Your task to perform on an android device: Open Google Chrome and click the shortcut for Amazon.com Image 0: 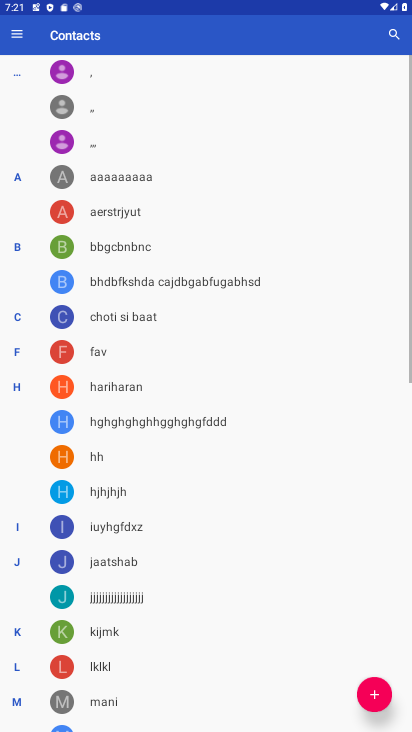
Step 0: press home button
Your task to perform on an android device: Open Google Chrome and click the shortcut for Amazon.com Image 1: 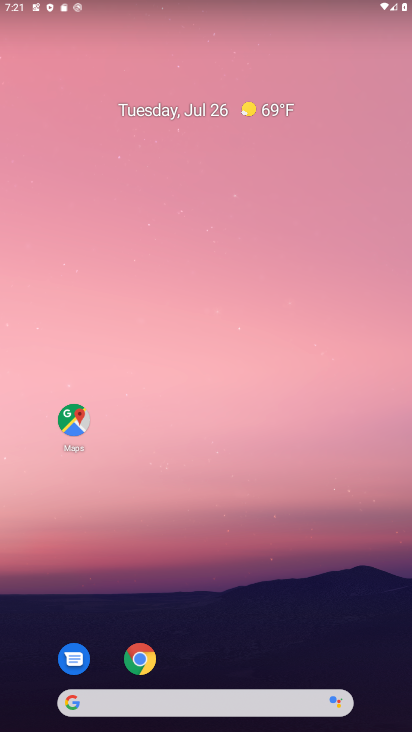
Step 1: click (136, 659)
Your task to perform on an android device: Open Google Chrome and click the shortcut for Amazon.com Image 2: 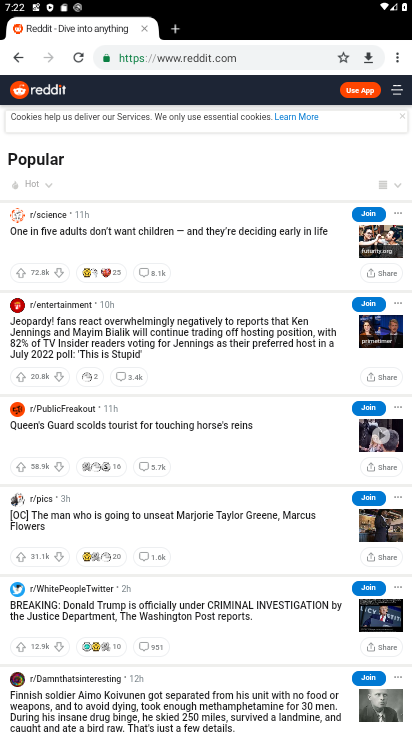
Step 2: click (172, 34)
Your task to perform on an android device: Open Google Chrome and click the shortcut for Amazon.com Image 3: 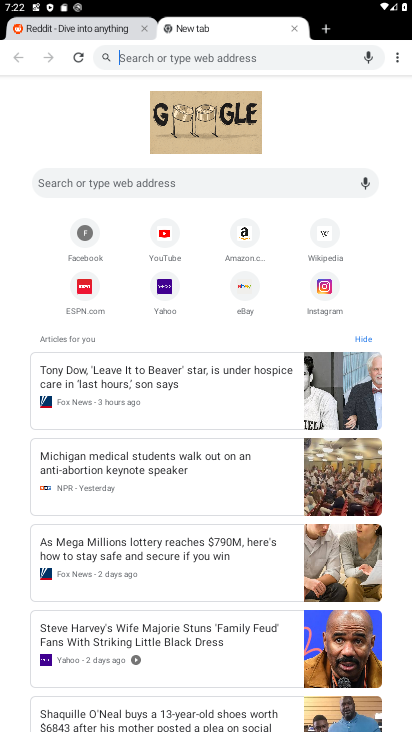
Step 3: click (247, 230)
Your task to perform on an android device: Open Google Chrome and click the shortcut for Amazon.com Image 4: 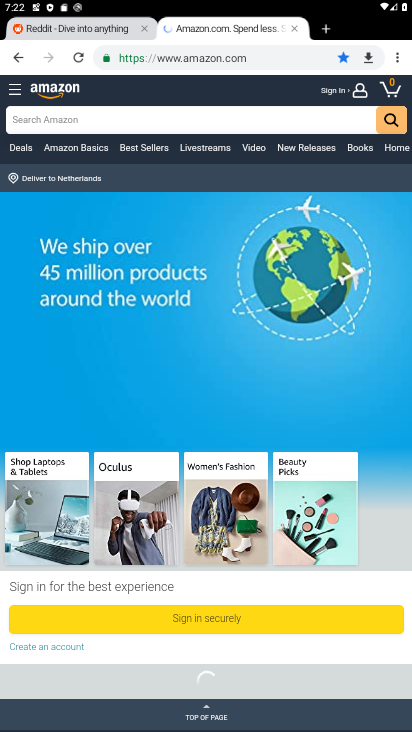
Step 4: click (392, 64)
Your task to perform on an android device: Open Google Chrome and click the shortcut for Amazon.com Image 5: 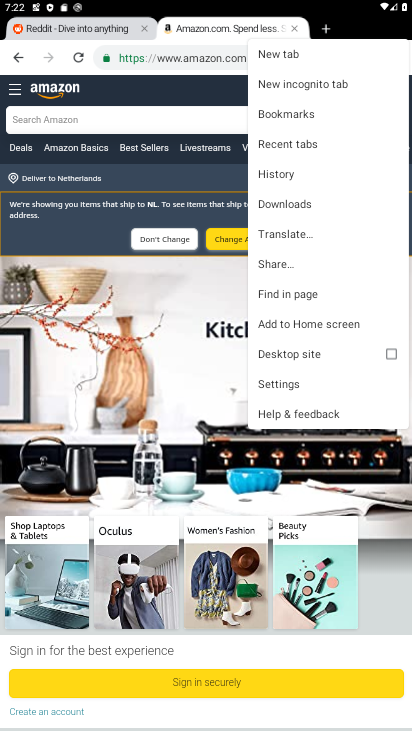
Step 5: click (286, 323)
Your task to perform on an android device: Open Google Chrome and click the shortcut for Amazon.com Image 6: 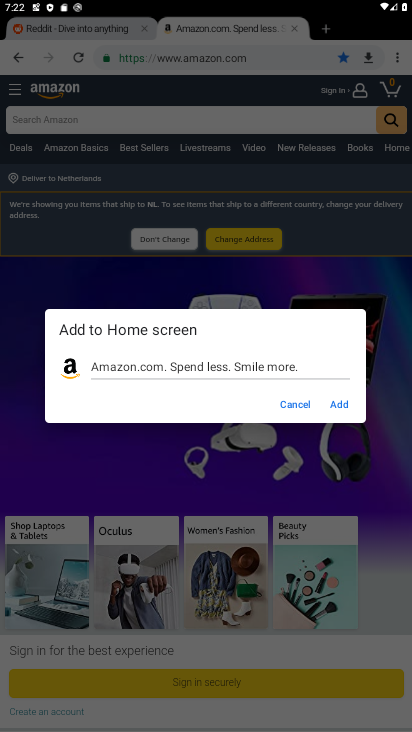
Step 6: click (339, 401)
Your task to perform on an android device: Open Google Chrome and click the shortcut for Amazon.com Image 7: 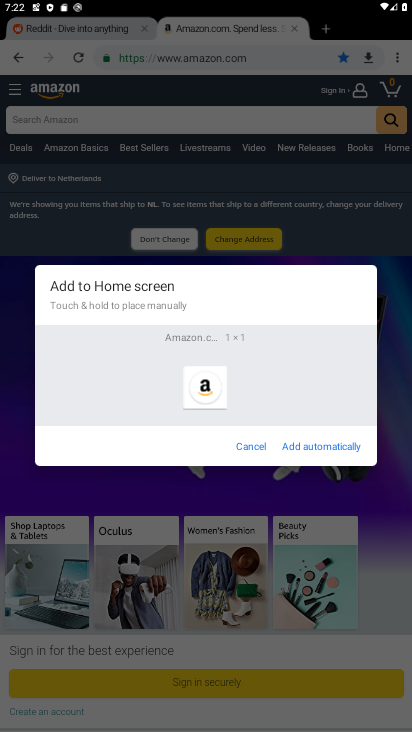
Step 7: task complete